Your task to perform on an android device: Open Maps and search for coffee Image 0: 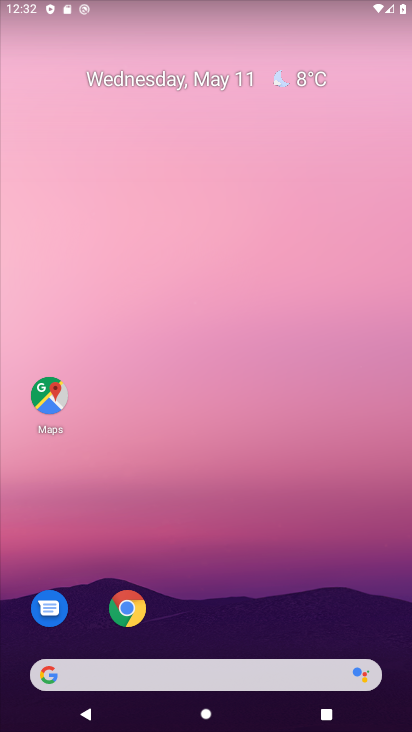
Step 0: click (39, 396)
Your task to perform on an android device: Open Maps and search for coffee Image 1: 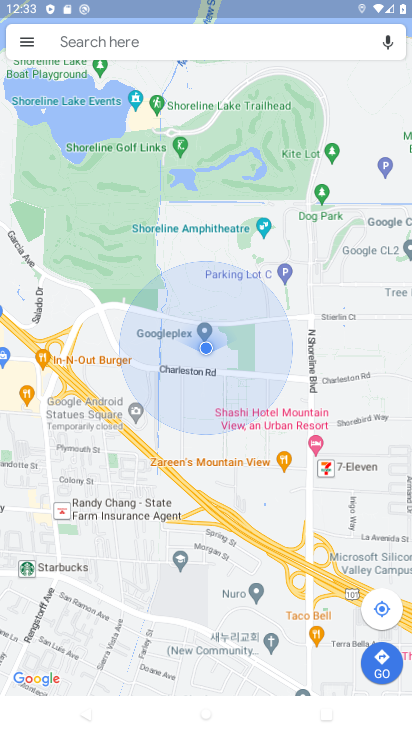
Step 1: click (259, 44)
Your task to perform on an android device: Open Maps and search for coffee Image 2: 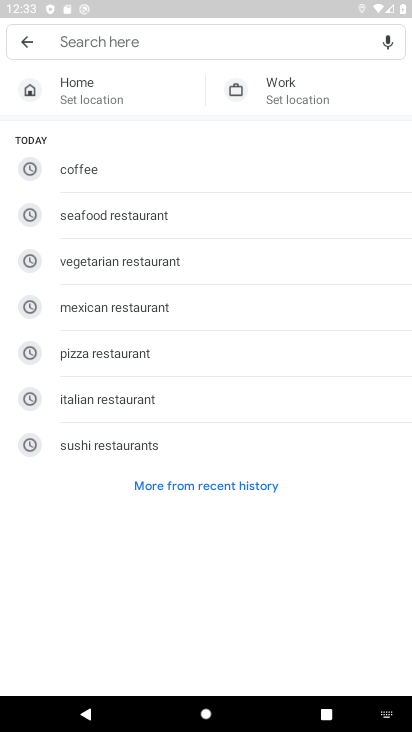
Step 2: click (112, 163)
Your task to perform on an android device: Open Maps and search for coffee Image 3: 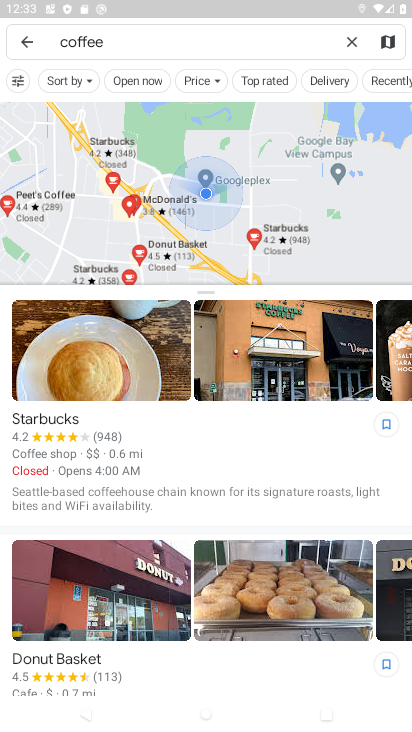
Step 3: task complete